Your task to perform on an android device: turn off location history Image 0: 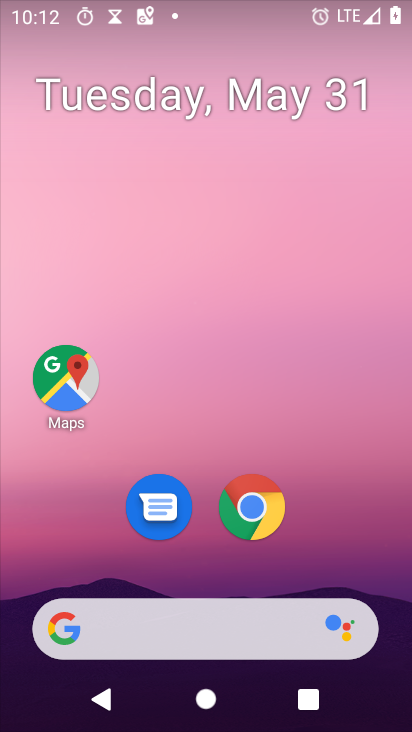
Step 0: drag from (18, 514) to (191, 136)
Your task to perform on an android device: turn off location history Image 1: 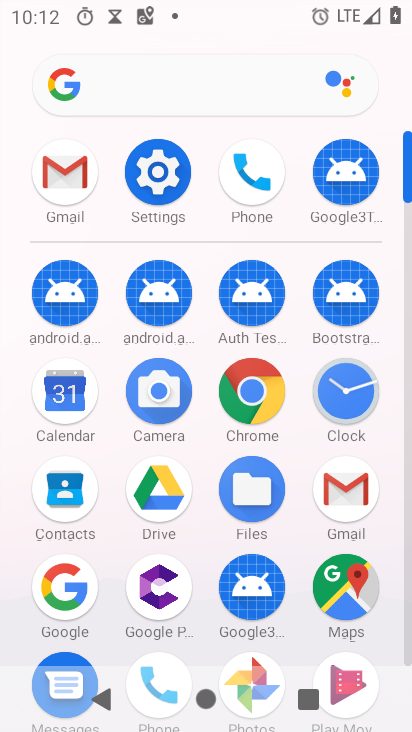
Step 1: click (156, 161)
Your task to perform on an android device: turn off location history Image 2: 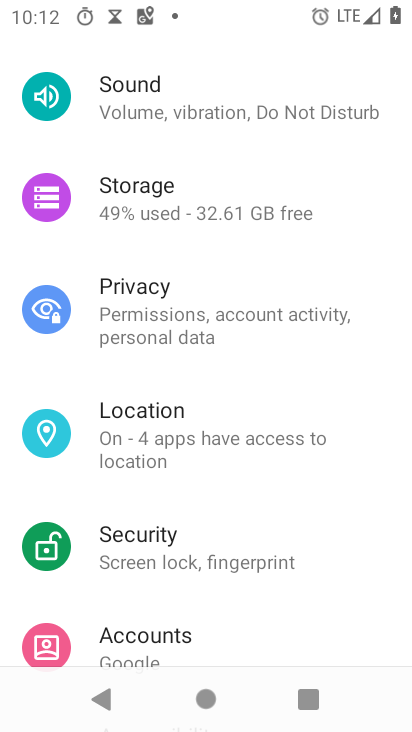
Step 2: click (122, 416)
Your task to perform on an android device: turn off location history Image 3: 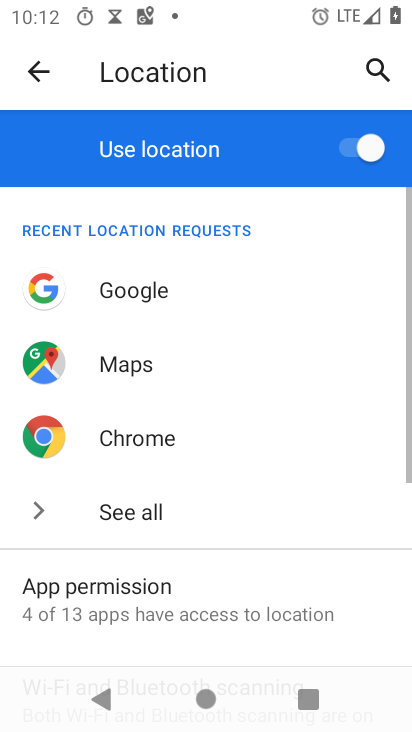
Step 3: drag from (25, 462) to (199, 82)
Your task to perform on an android device: turn off location history Image 4: 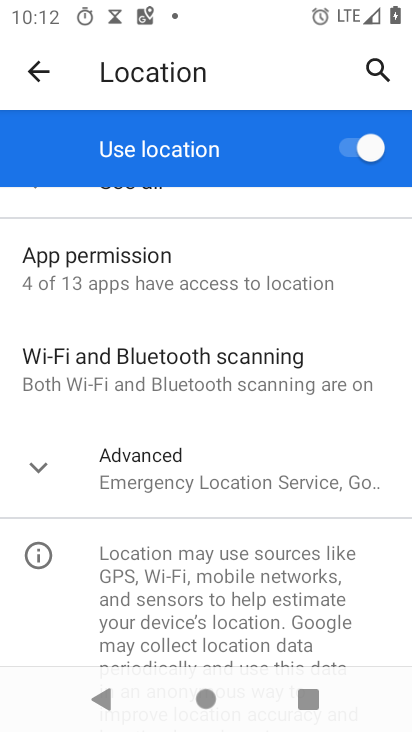
Step 4: click (213, 462)
Your task to perform on an android device: turn off location history Image 5: 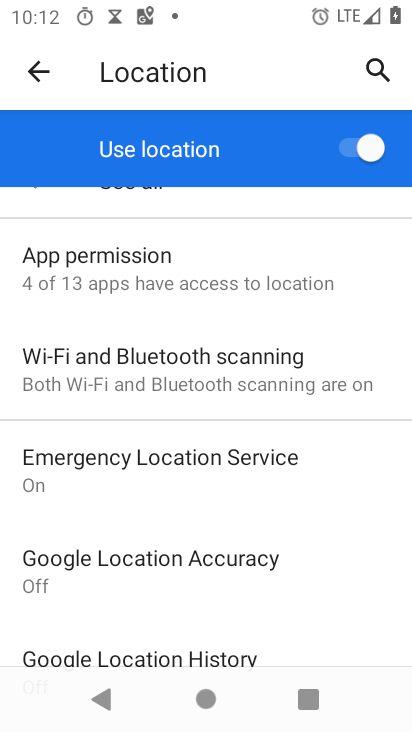
Step 5: drag from (10, 619) to (125, 219)
Your task to perform on an android device: turn off location history Image 6: 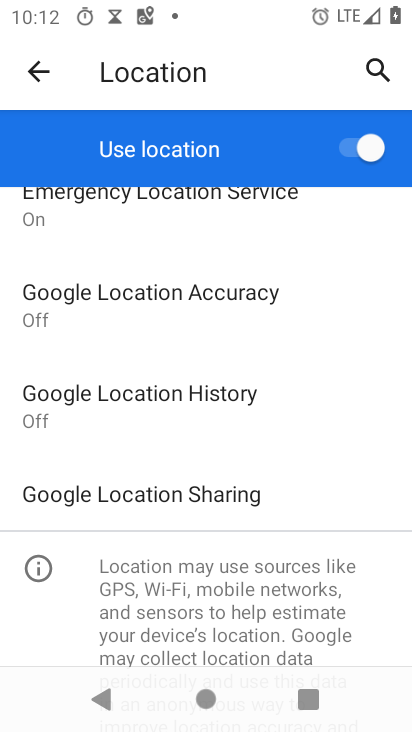
Step 6: click (152, 387)
Your task to perform on an android device: turn off location history Image 7: 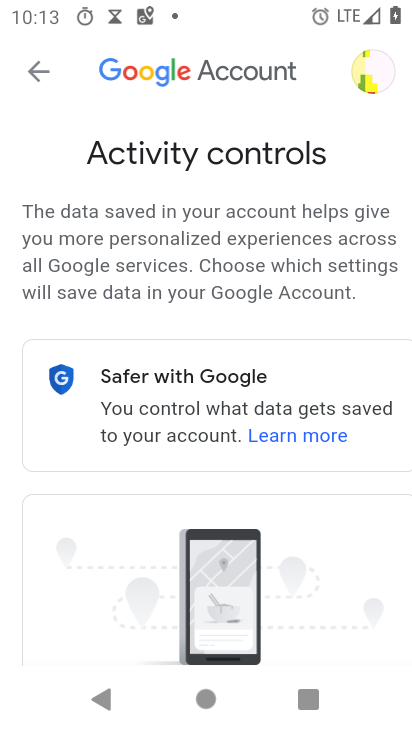
Step 7: drag from (11, 289) to (72, 171)
Your task to perform on an android device: turn off location history Image 8: 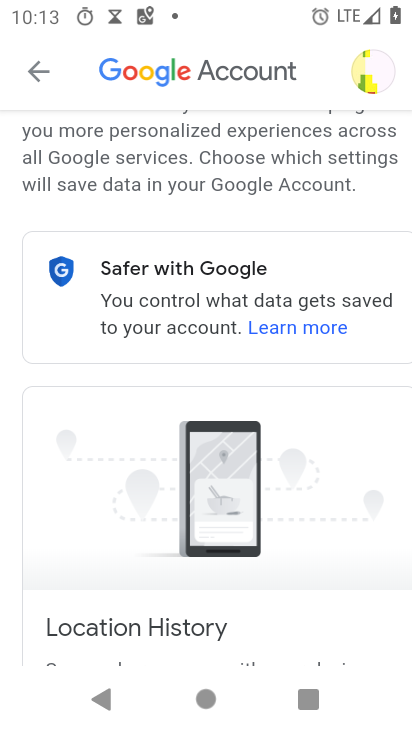
Step 8: drag from (12, 413) to (39, 223)
Your task to perform on an android device: turn off location history Image 9: 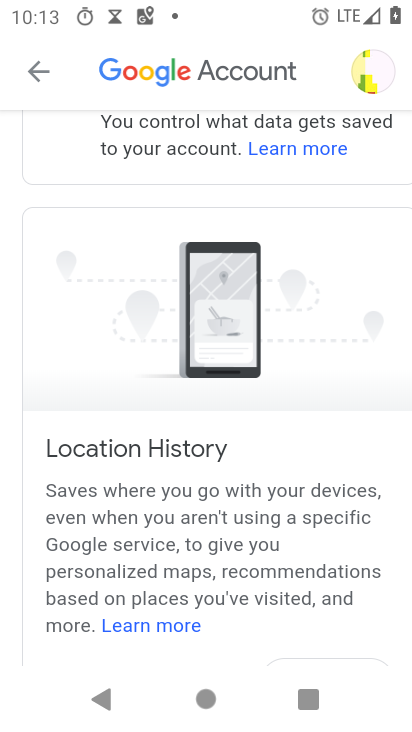
Step 9: drag from (5, 373) to (93, 184)
Your task to perform on an android device: turn off location history Image 10: 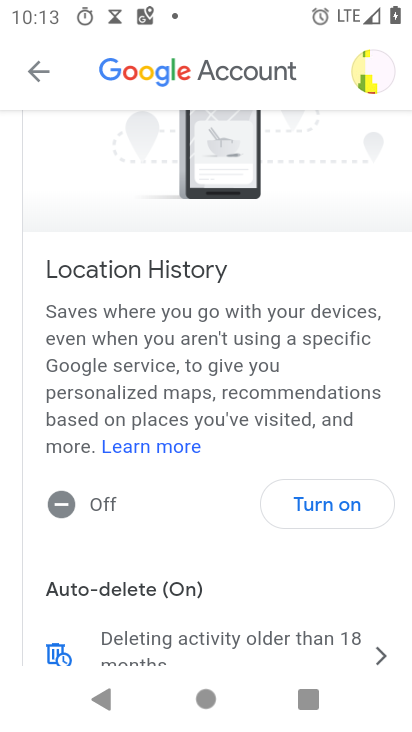
Step 10: click (317, 510)
Your task to perform on an android device: turn off location history Image 11: 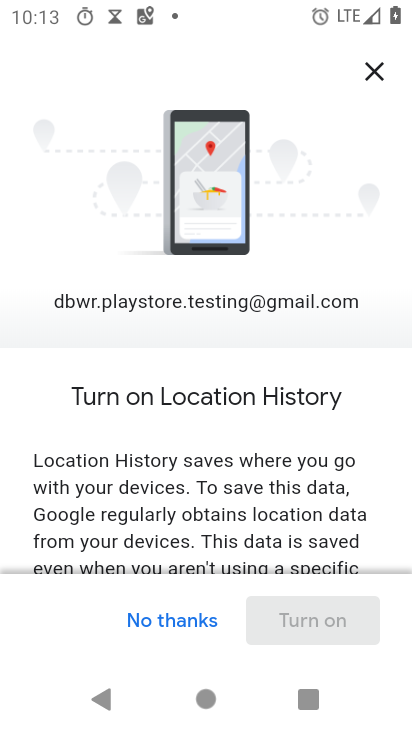
Step 11: click (381, 73)
Your task to perform on an android device: turn off location history Image 12: 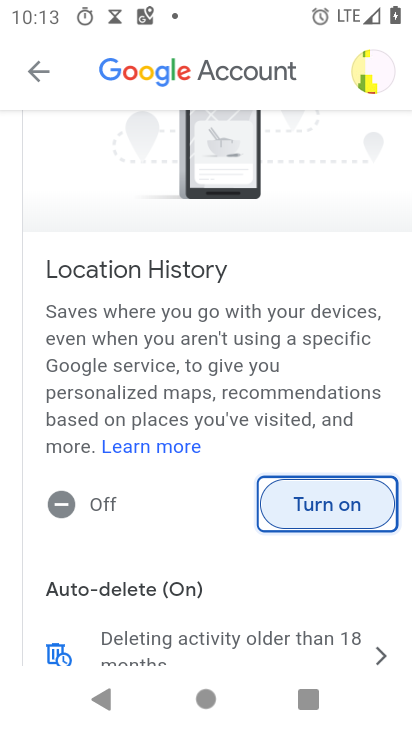
Step 12: task complete